Your task to perform on an android device: open a bookmark in the chrome app Image 0: 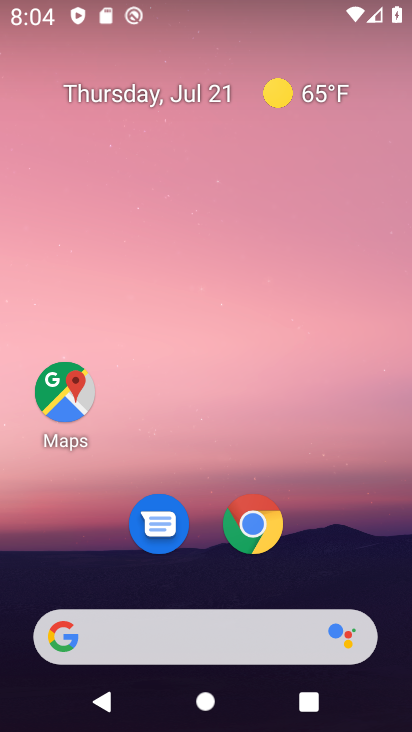
Step 0: click (248, 534)
Your task to perform on an android device: open a bookmark in the chrome app Image 1: 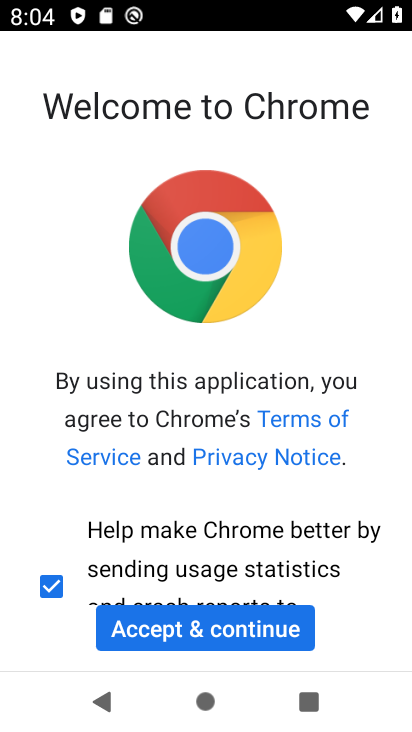
Step 1: click (158, 628)
Your task to perform on an android device: open a bookmark in the chrome app Image 2: 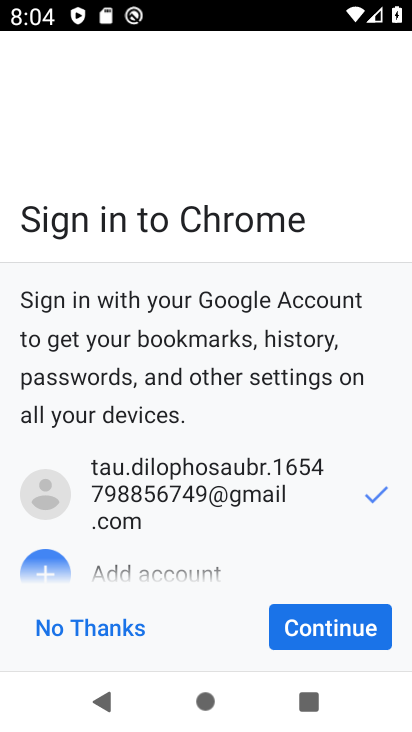
Step 2: click (359, 640)
Your task to perform on an android device: open a bookmark in the chrome app Image 3: 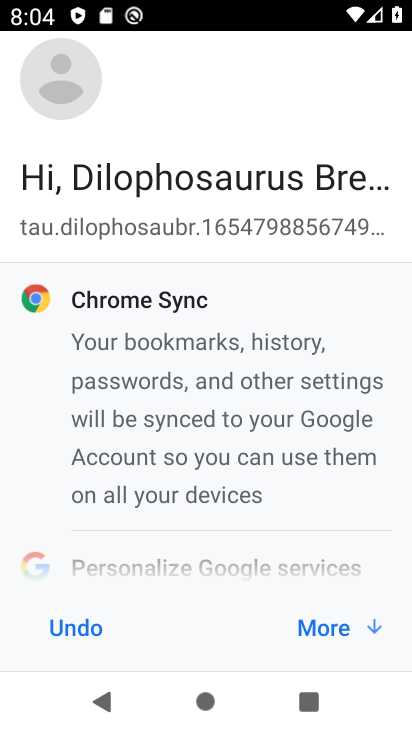
Step 3: click (332, 627)
Your task to perform on an android device: open a bookmark in the chrome app Image 4: 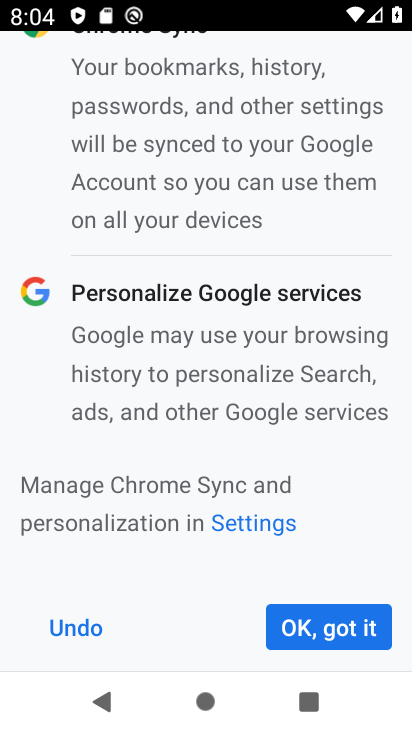
Step 4: click (332, 627)
Your task to perform on an android device: open a bookmark in the chrome app Image 5: 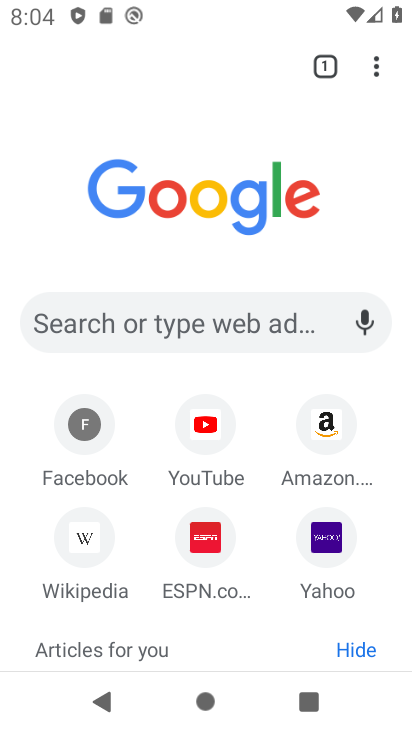
Step 5: drag from (376, 66) to (183, 250)
Your task to perform on an android device: open a bookmark in the chrome app Image 6: 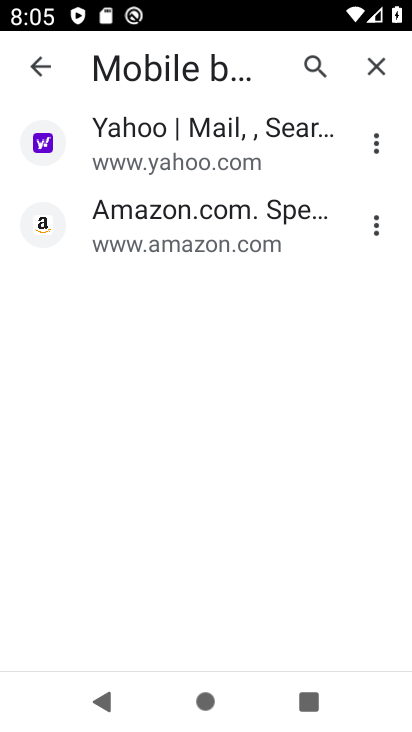
Step 6: click (168, 214)
Your task to perform on an android device: open a bookmark in the chrome app Image 7: 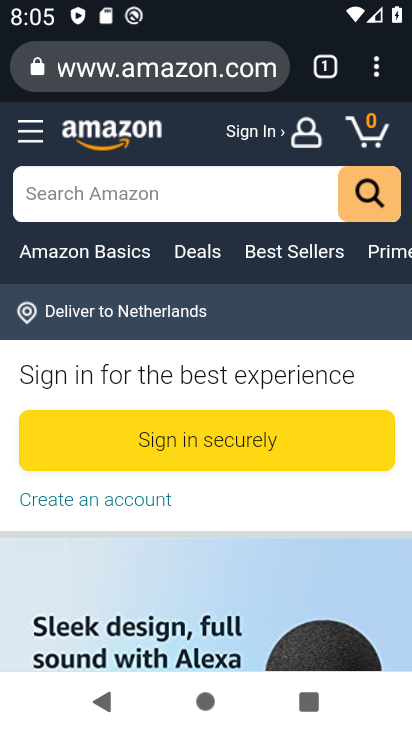
Step 7: task complete